Your task to perform on an android device: toggle priority inbox in the gmail app Image 0: 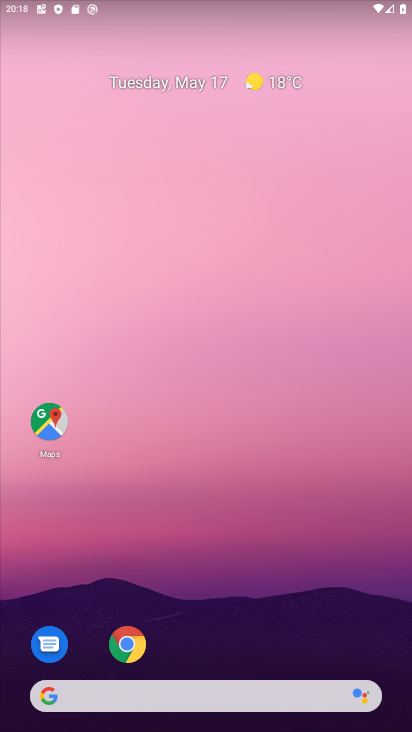
Step 0: drag from (196, 624) to (261, 5)
Your task to perform on an android device: toggle priority inbox in the gmail app Image 1: 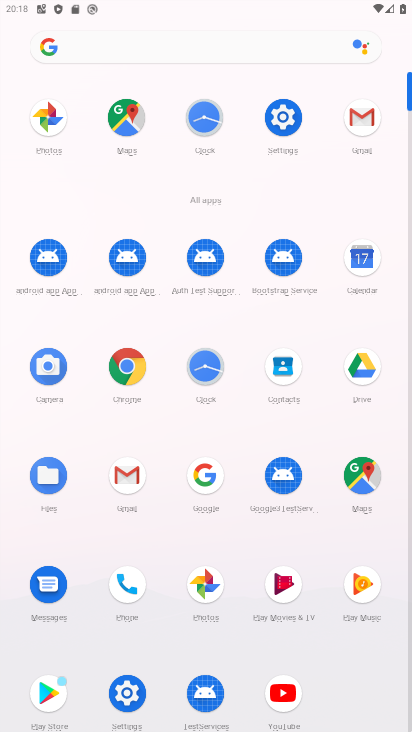
Step 1: click (367, 118)
Your task to perform on an android device: toggle priority inbox in the gmail app Image 2: 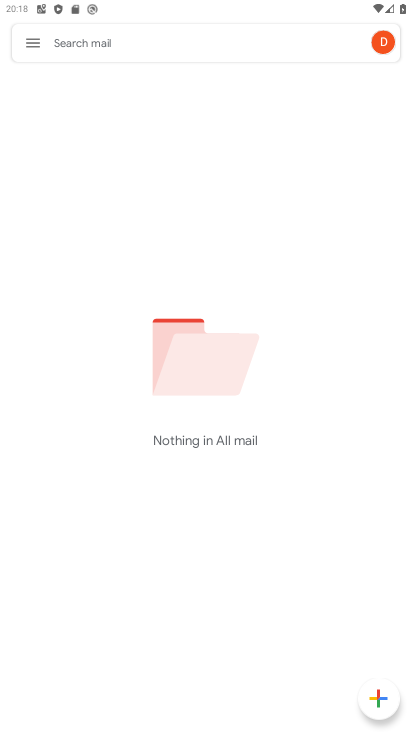
Step 2: click (32, 38)
Your task to perform on an android device: toggle priority inbox in the gmail app Image 3: 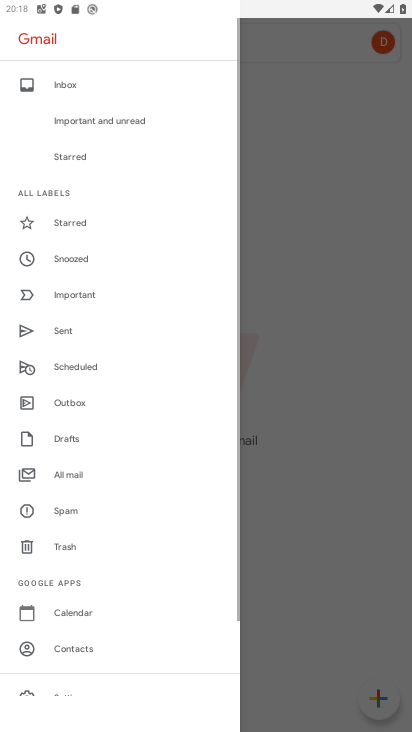
Step 3: drag from (93, 624) to (152, 95)
Your task to perform on an android device: toggle priority inbox in the gmail app Image 4: 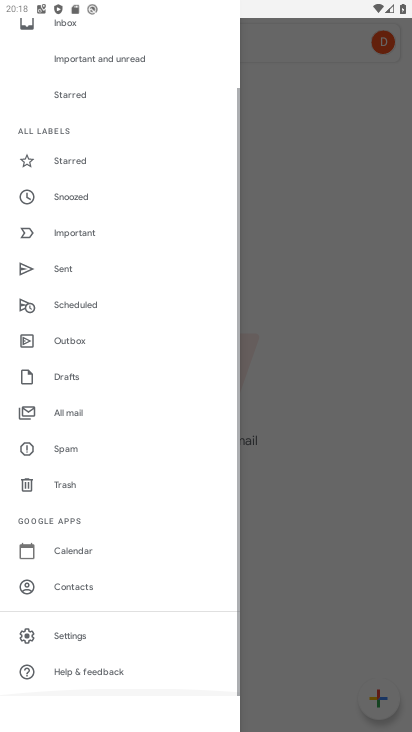
Step 4: click (51, 633)
Your task to perform on an android device: toggle priority inbox in the gmail app Image 5: 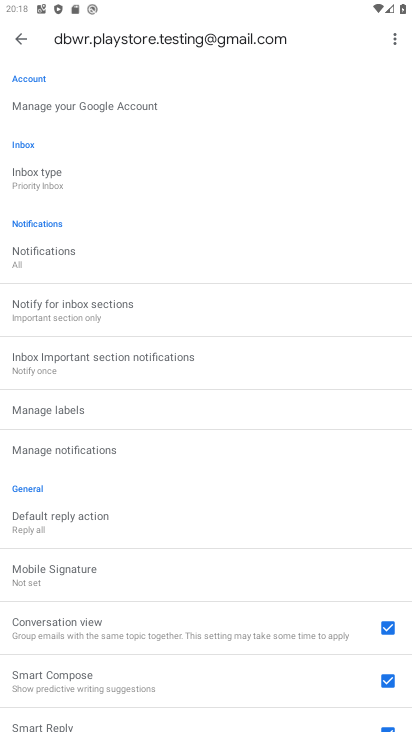
Step 5: click (39, 174)
Your task to perform on an android device: toggle priority inbox in the gmail app Image 6: 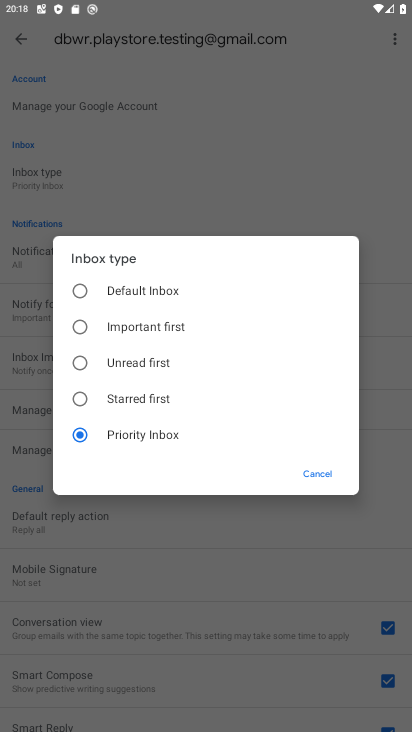
Step 6: click (82, 438)
Your task to perform on an android device: toggle priority inbox in the gmail app Image 7: 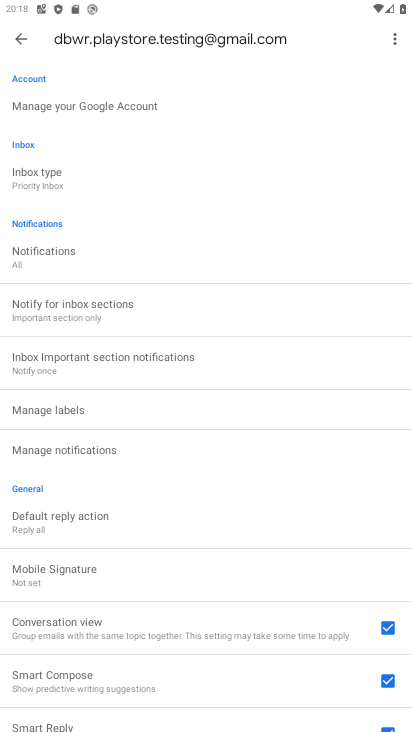
Step 7: task complete